Your task to perform on an android device: Open Android settings Image 0: 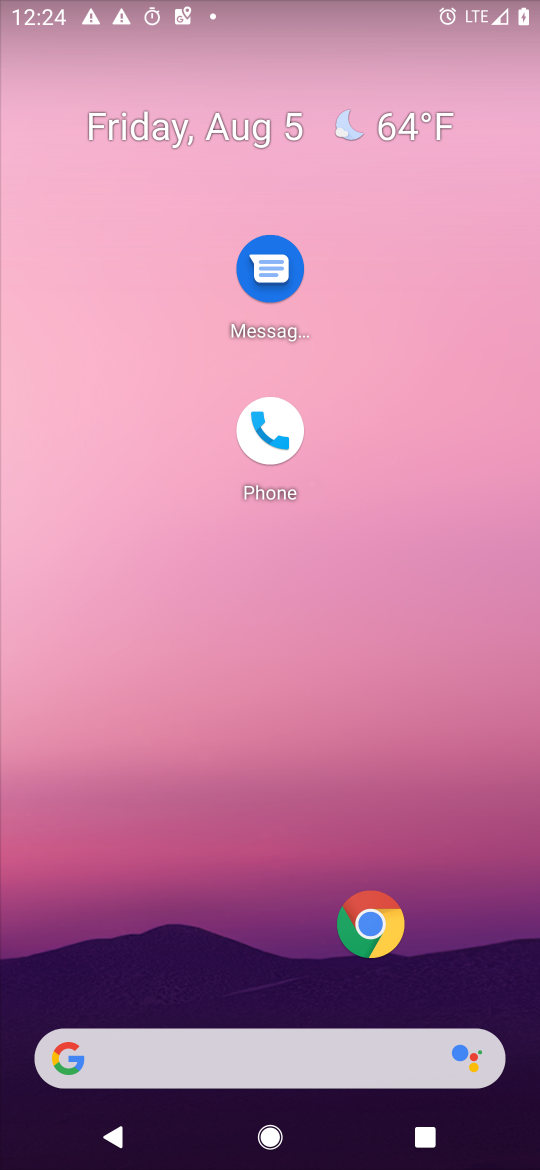
Step 0: drag from (298, 865) to (340, 256)
Your task to perform on an android device: Open Android settings Image 1: 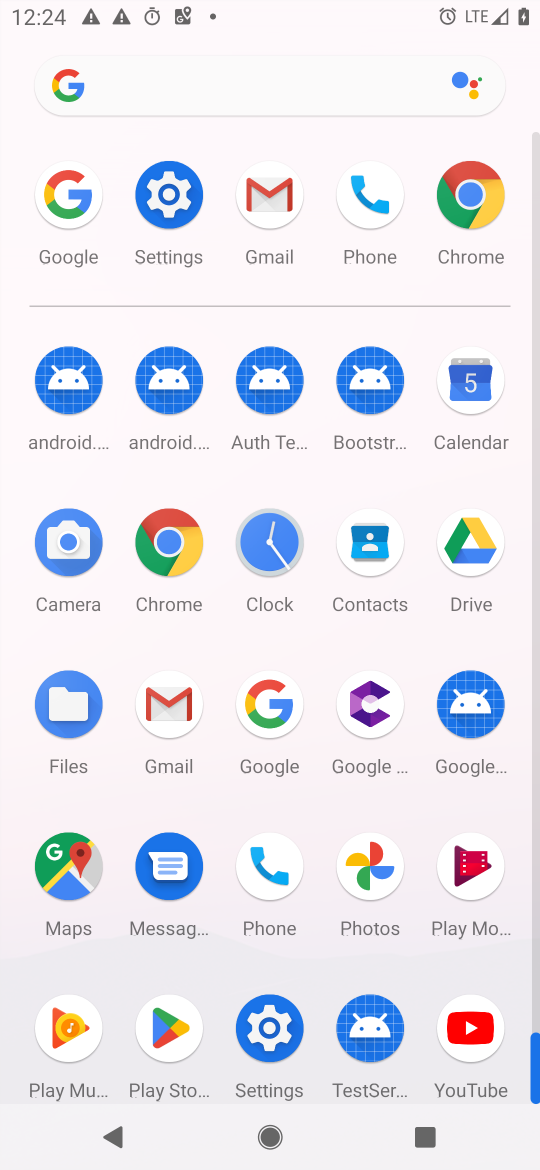
Step 1: click (377, 843)
Your task to perform on an android device: Open Android settings Image 2: 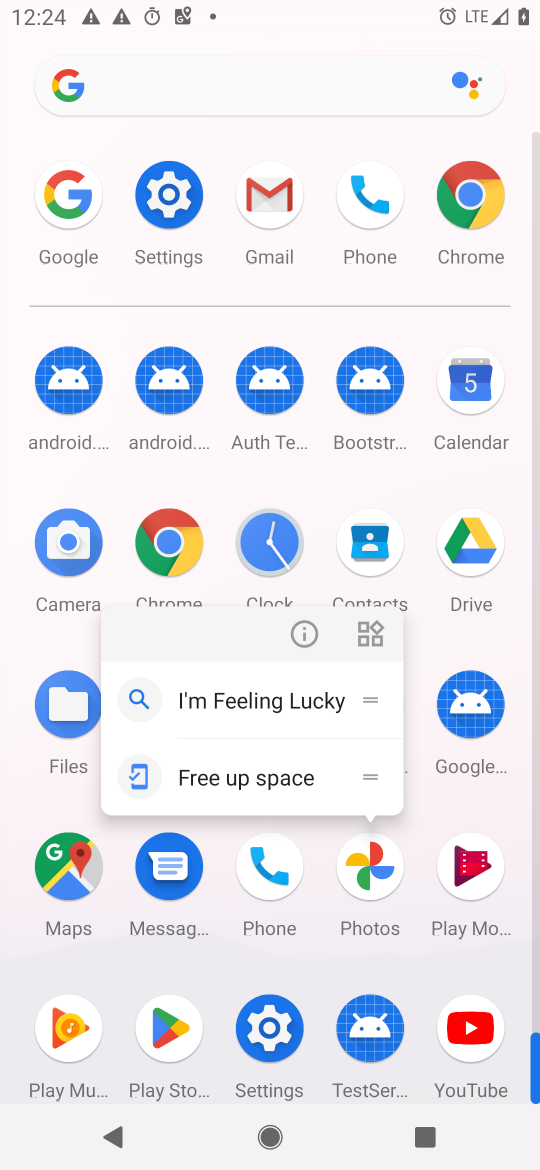
Step 2: click (294, 637)
Your task to perform on an android device: Open Android settings Image 3: 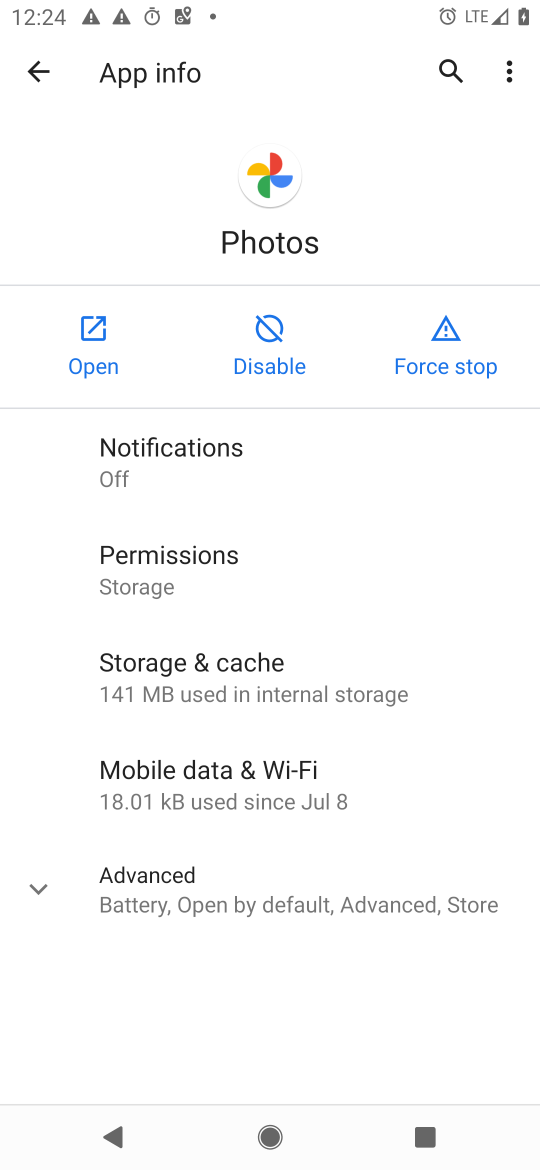
Step 3: click (95, 287)
Your task to perform on an android device: Open Android settings Image 4: 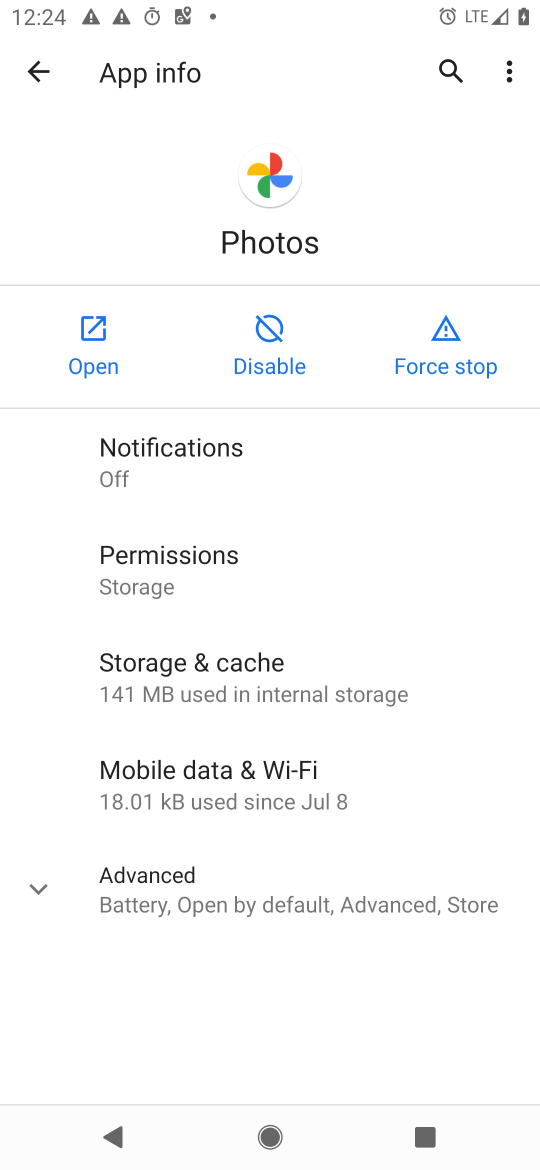
Step 4: click (82, 361)
Your task to perform on an android device: Open Android settings Image 5: 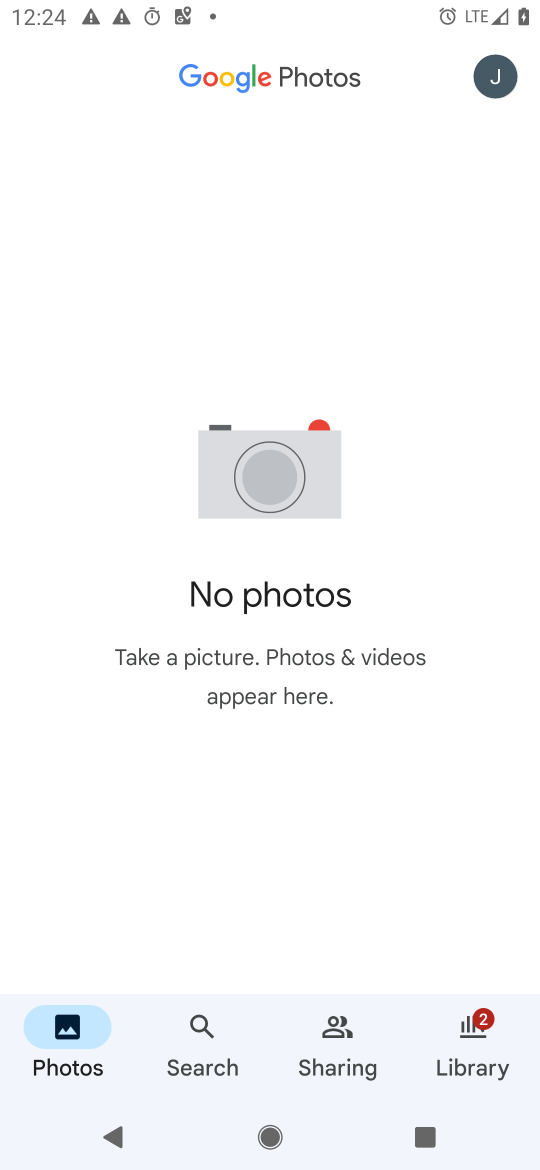
Step 5: press home button
Your task to perform on an android device: Open Android settings Image 6: 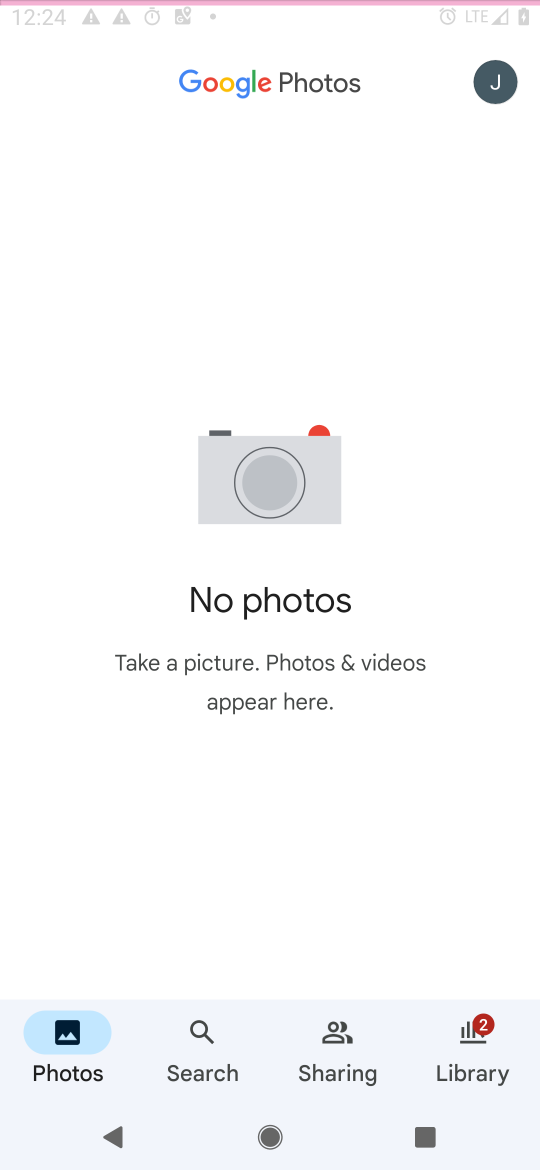
Step 6: drag from (281, 877) to (324, 368)
Your task to perform on an android device: Open Android settings Image 7: 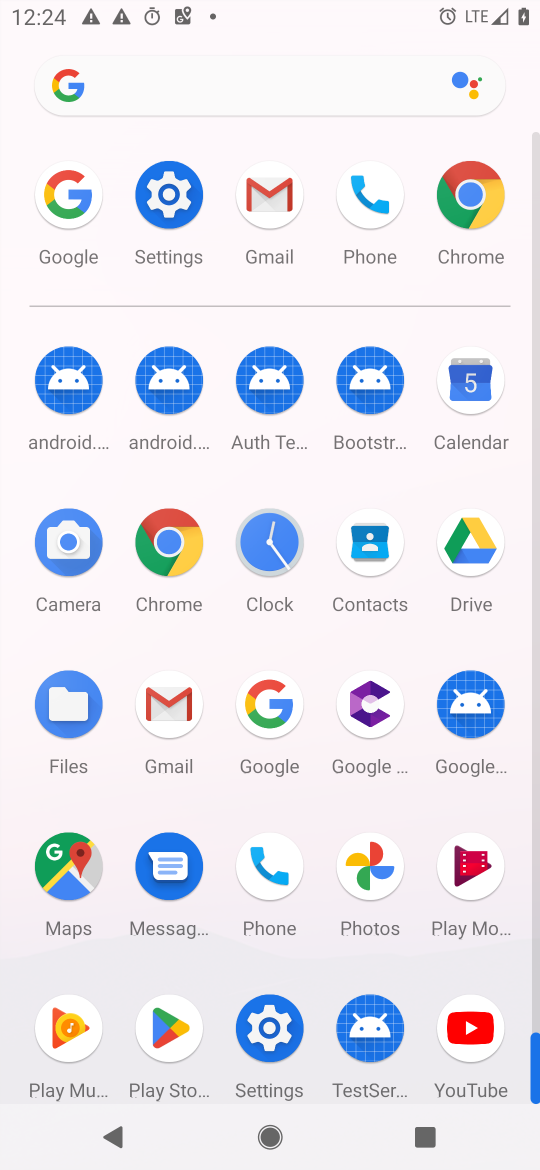
Step 7: click (274, 1031)
Your task to perform on an android device: Open Android settings Image 8: 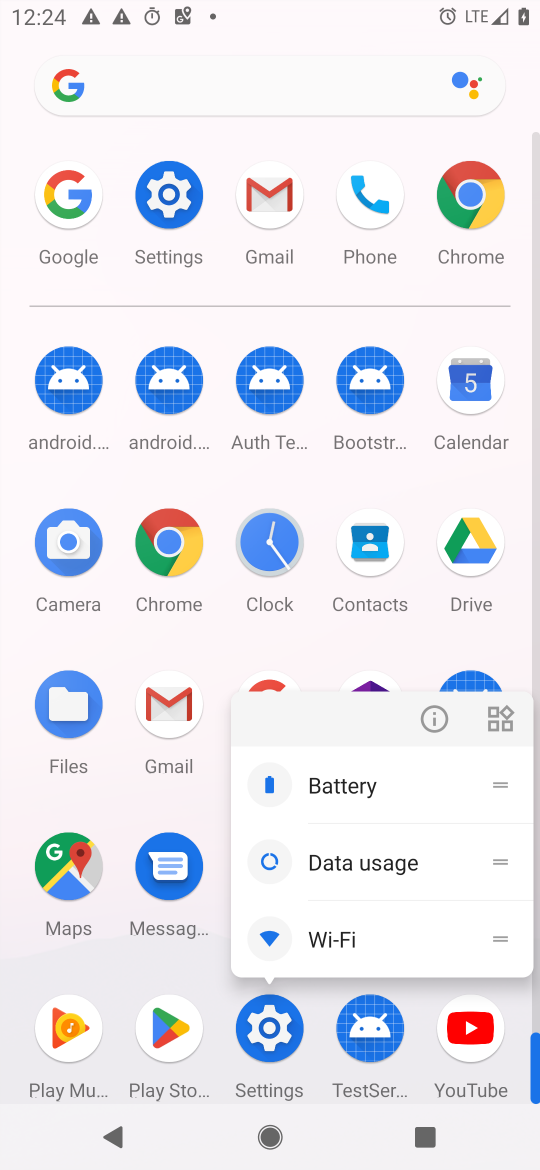
Step 8: click (436, 723)
Your task to perform on an android device: Open Android settings Image 9: 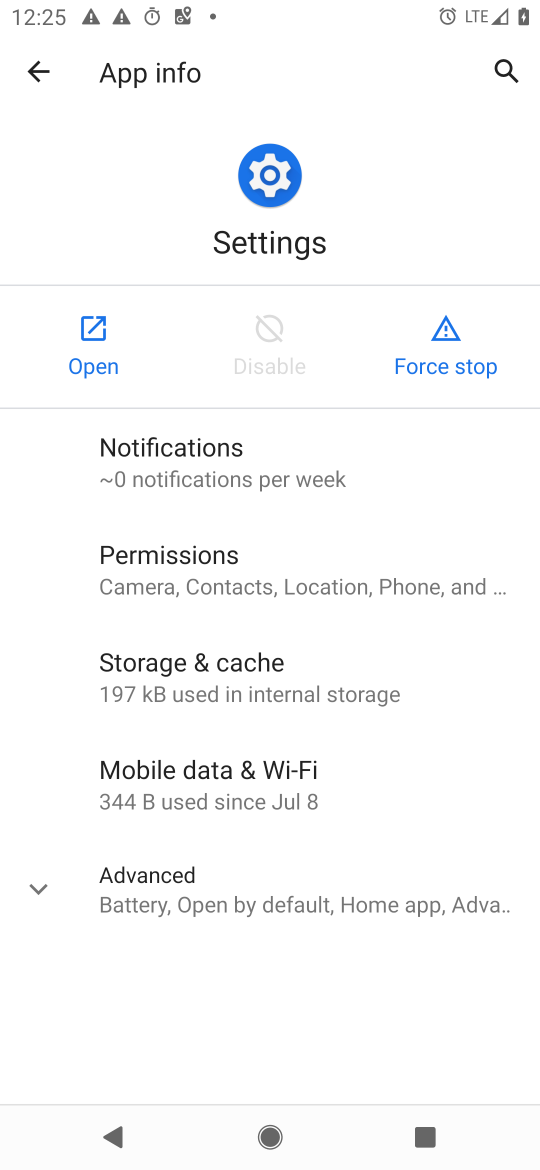
Step 9: click (87, 345)
Your task to perform on an android device: Open Android settings Image 10: 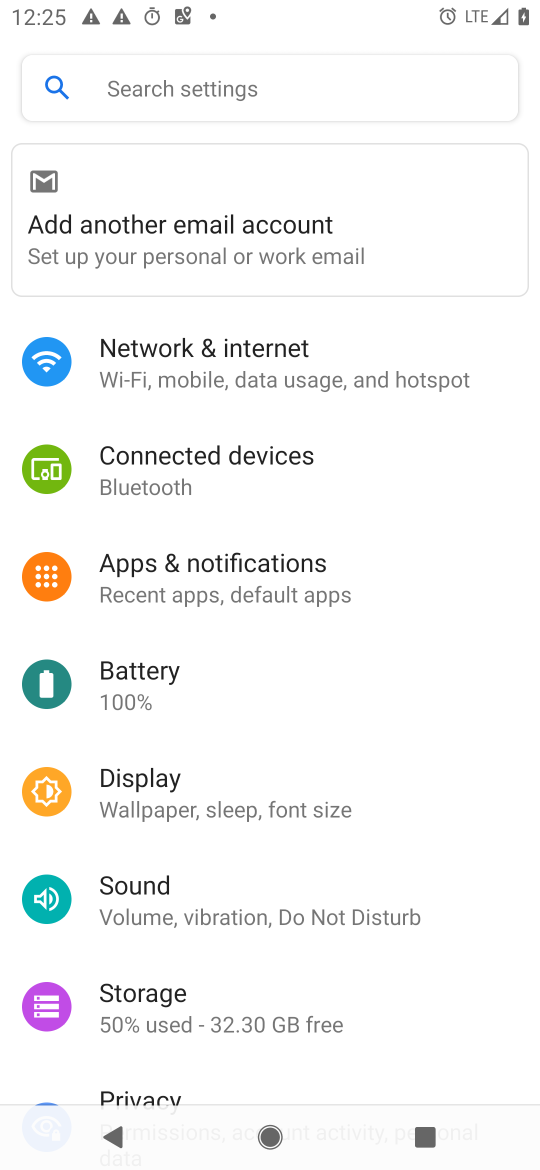
Step 10: drag from (219, 1034) to (247, 110)
Your task to perform on an android device: Open Android settings Image 11: 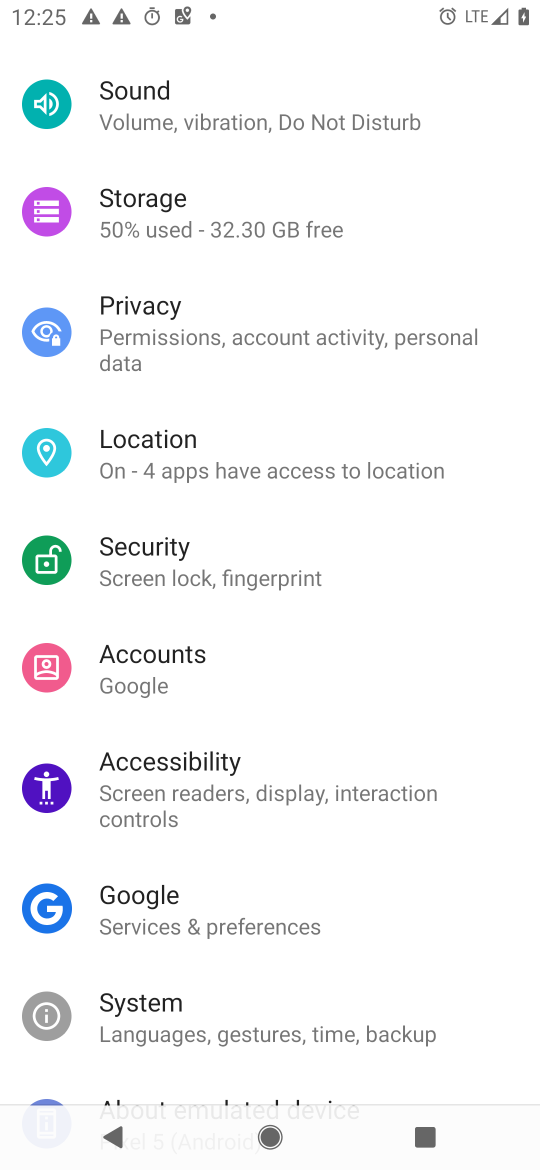
Step 11: drag from (233, 864) to (256, 21)
Your task to perform on an android device: Open Android settings Image 12: 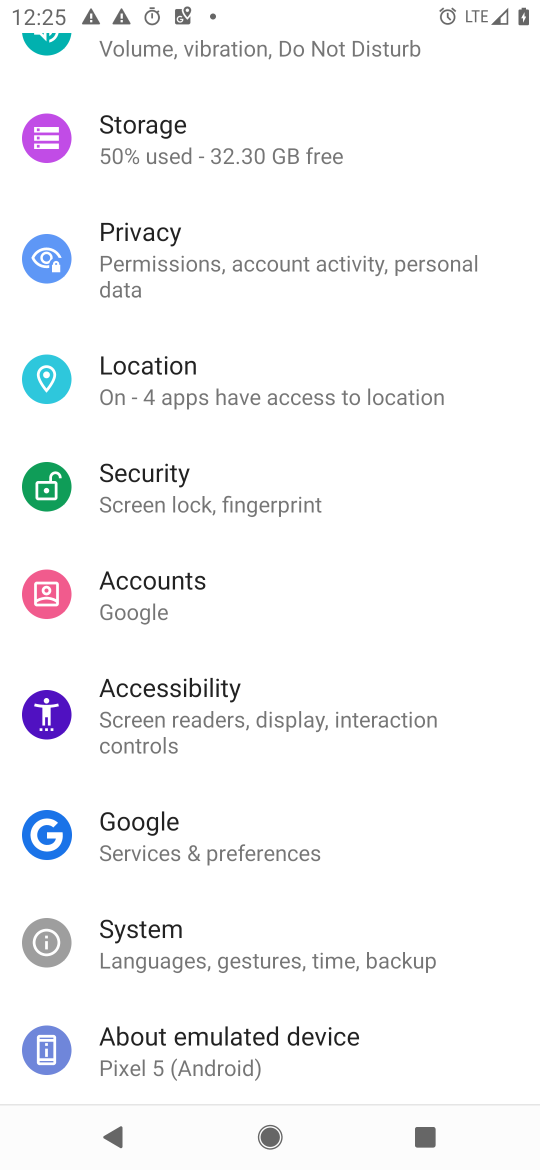
Step 12: click (151, 1047)
Your task to perform on an android device: Open Android settings Image 13: 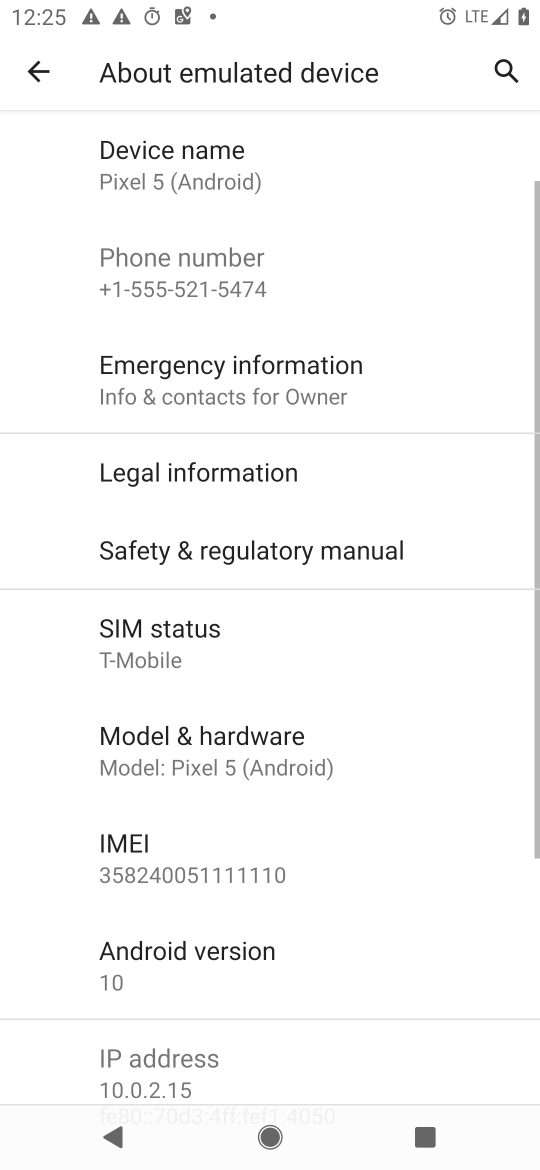
Step 13: click (173, 983)
Your task to perform on an android device: Open Android settings Image 14: 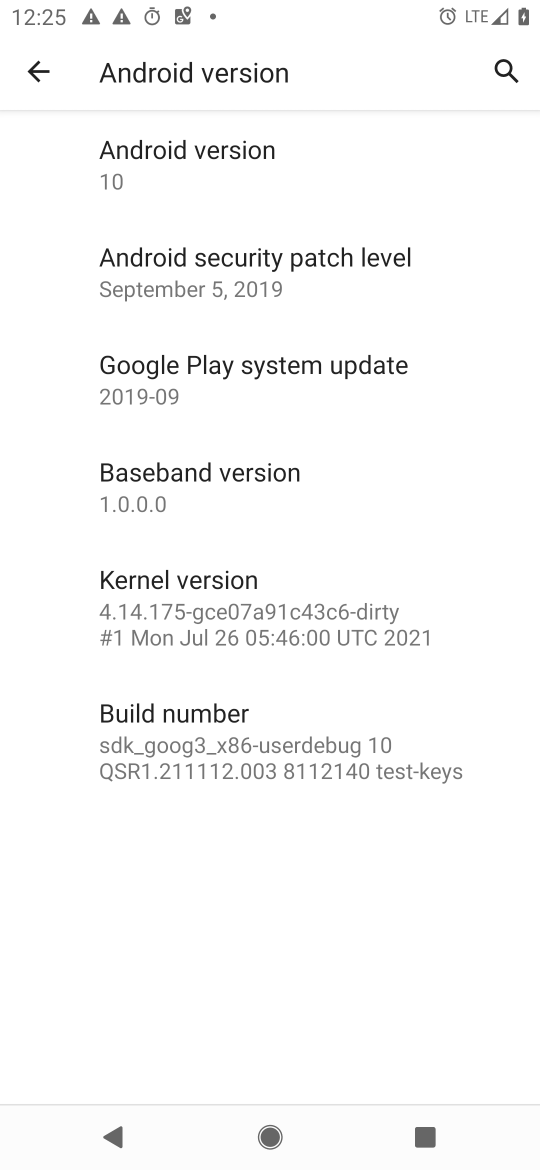
Step 14: task complete